Your task to perform on an android device: Clear all items from cart on target.com. Add bose quietcomfort 35 to the cart on target.com, then select checkout. Image 0: 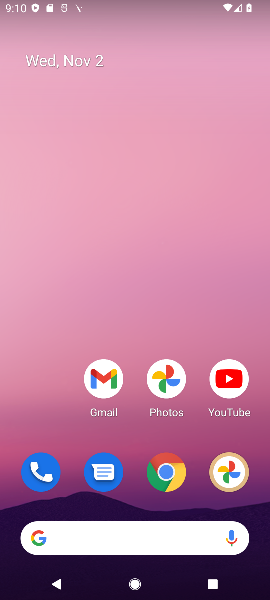
Step 0: click (159, 474)
Your task to perform on an android device: Clear all items from cart on target.com. Add bose quietcomfort 35 to the cart on target.com, then select checkout. Image 1: 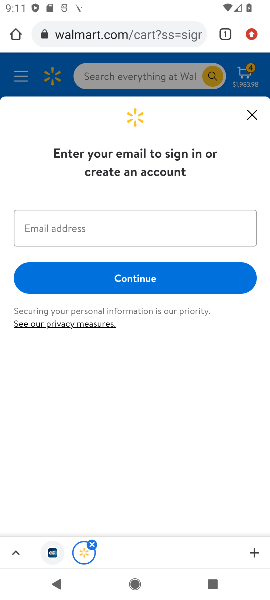
Step 1: task complete